Your task to perform on an android device: see creations saved in the google photos Image 0: 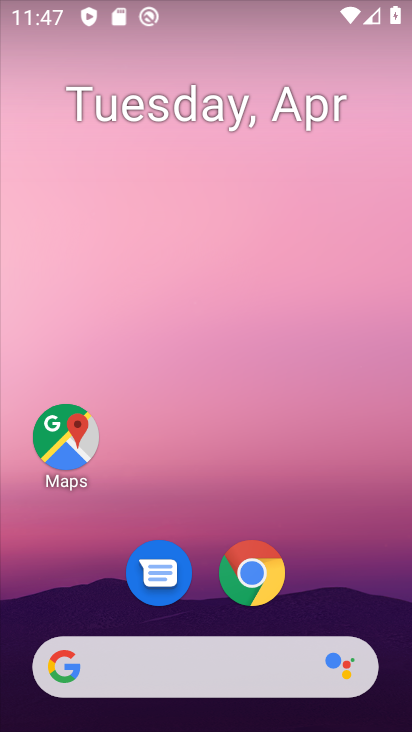
Step 0: drag from (343, 610) to (309, 135)
Your task to perform on an android device: see creations saved in the google photos Image 1: 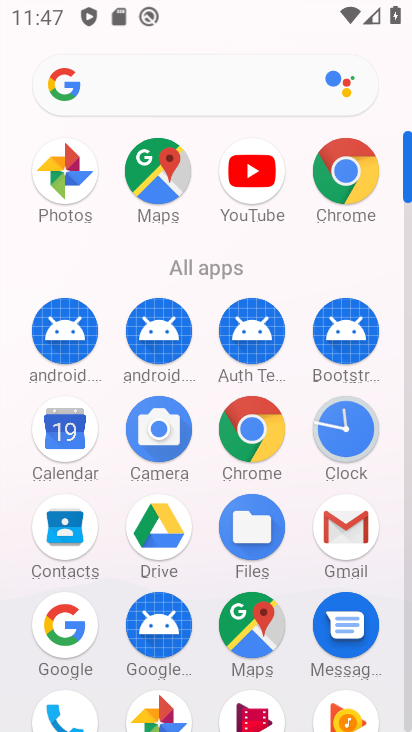
Step 1: click (62, 191)
Your task to perform on an android device: see creations saved in the google photos Image 2: 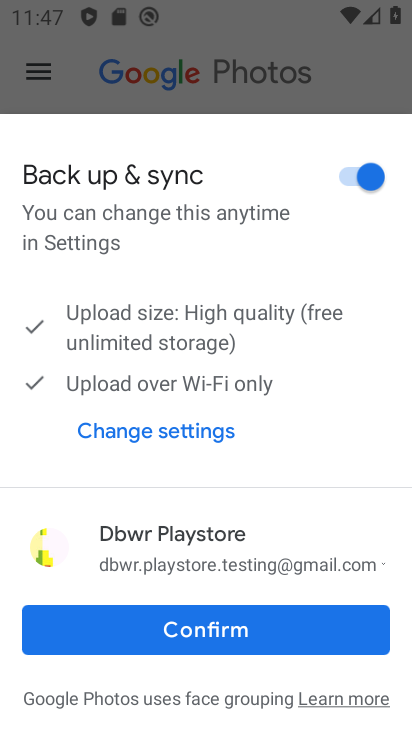
Step 2: click (291, 627)
Your task to perform on an android device: see creations saved in the google photos Image 3: 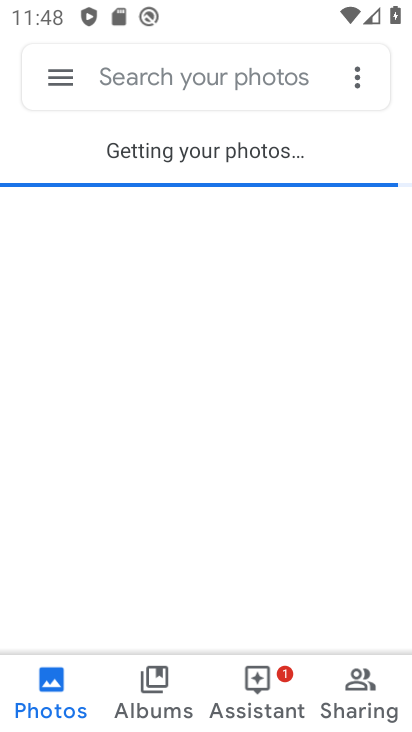
Step 3: click (264, 93)
Your task to perform on an android device: see creations saved in the google photos Image 4: 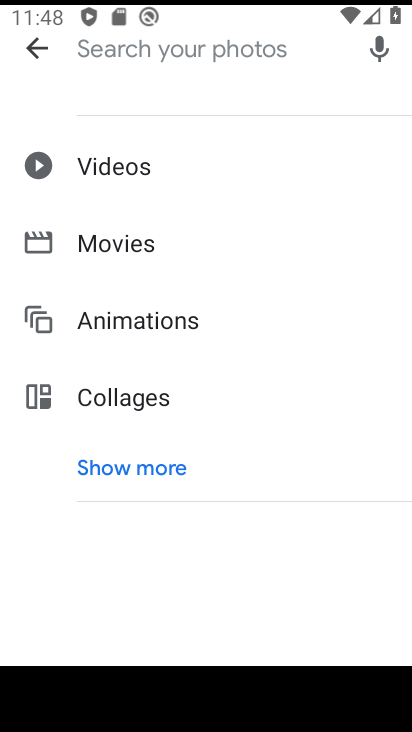
Step 4: click (121, 466)
Your task to perform on an android device: see creations saved in the google photos Image 5: 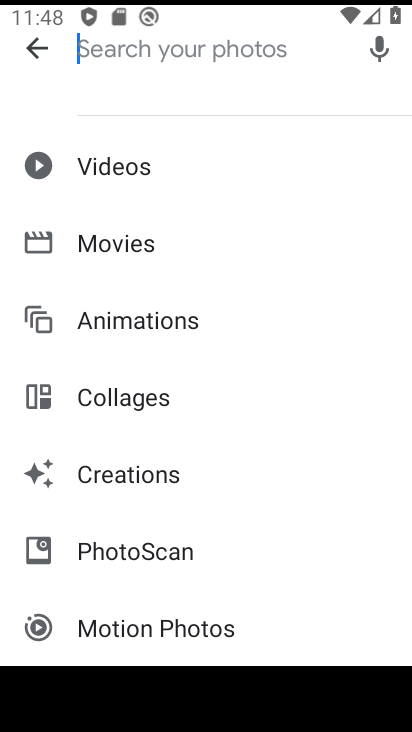
Step 5: click (143, 483)
Your task to perform on an android device: see creations saved in the google photos Image 6: 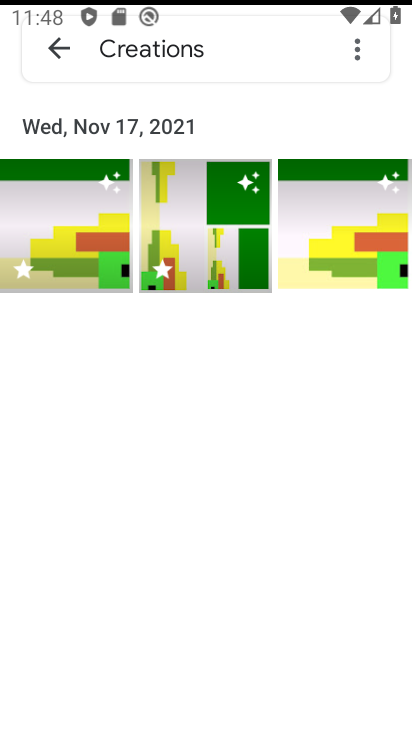
Step 6: task complete